Your task to perform on an android device: Search for "macbook pro 15 inch" on walmart.com, select the first entry, and add it to the cart. Image 0: 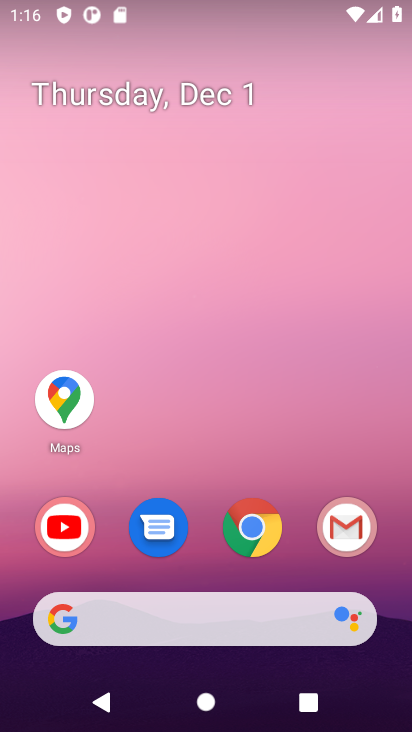
Step 0: click (256, 535)
Your task to perform on an android device: Search for "macbook pro 15 inch" on walmart.com, select the first entry, and add it to the cart. Image 1: 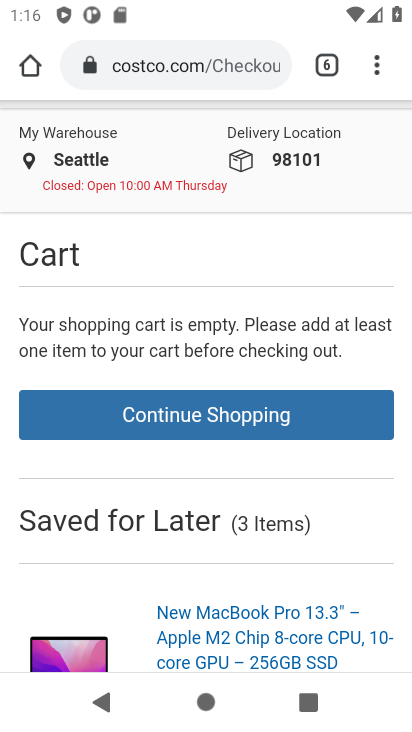
Step 1: click (186, 69)
Your task to perform on an android device: Search for "macbook pro 15 inch" on walmart.com, select the first entry, and add it to the cart. Image 2: 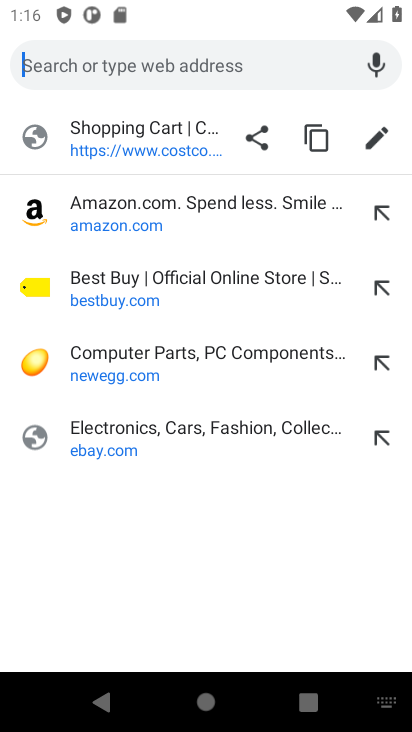
Step 2: type "walmart.com"
Your task to perform on an android device: Search for "macbook pro 15 inch" on walmart.com, select the first entry, and add it to the cart. Image 3: 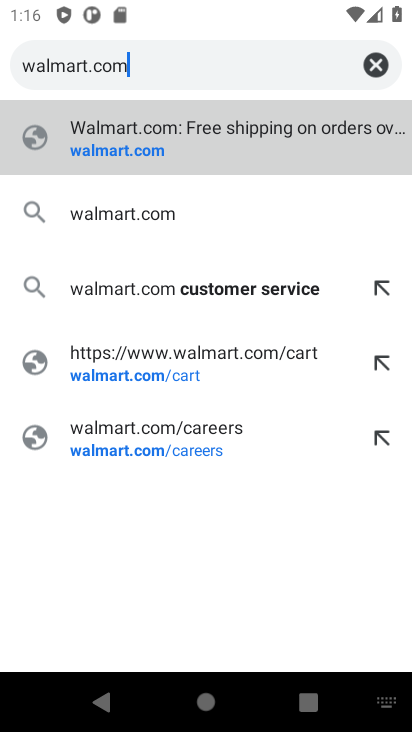
Step 3: click (70, 147)
Your task to perform on an android device: Search for "macbook pro 15 inch" on walmart.com, select the first entry, and add it to the cart. Image 4: 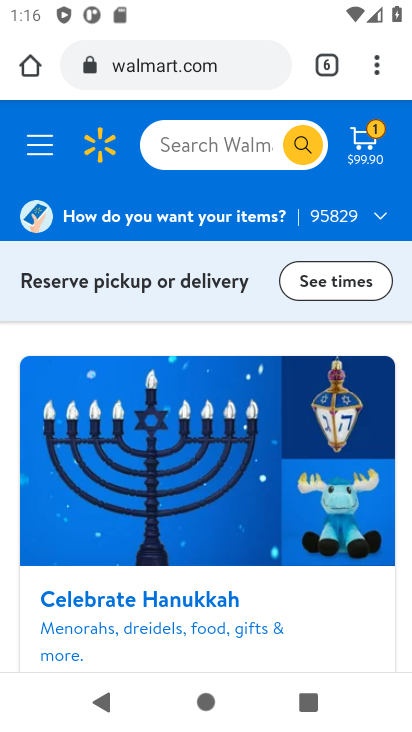
Step 4: click (168, 152)
Your task to perform on an android device: Search for "macbook pro 15 inch" on walmart.com, select the first entry, and add it to the cart. Image 5: 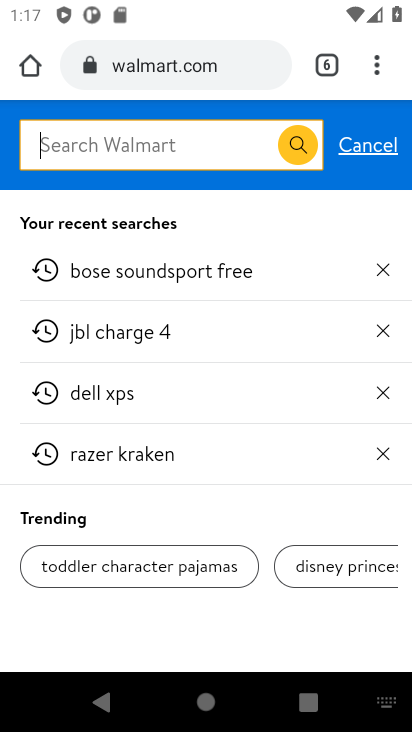
Step 5: type "macbook pro 15 inch"
Your task to perform on an android device: Search for "macbook pro 15 inch" on walmart.com, select the first entry, and add it to the cart. Image 6: 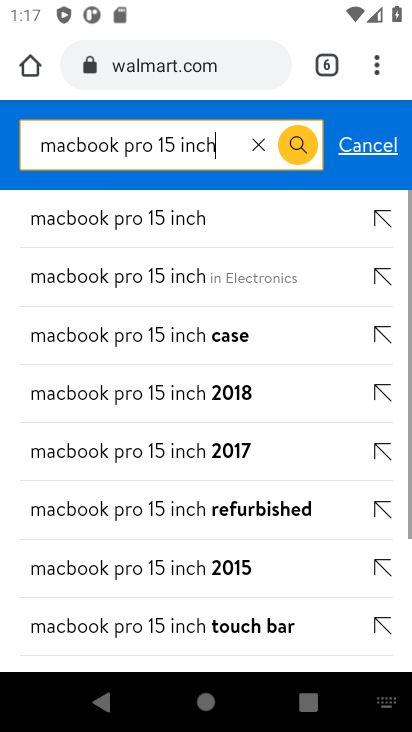
Step 6: click (141, 218)
Your task to perform on an android device: Search for "macbook pro 15 inch" on walmart.com, select the first entry, and add it to the cart. Image 7: 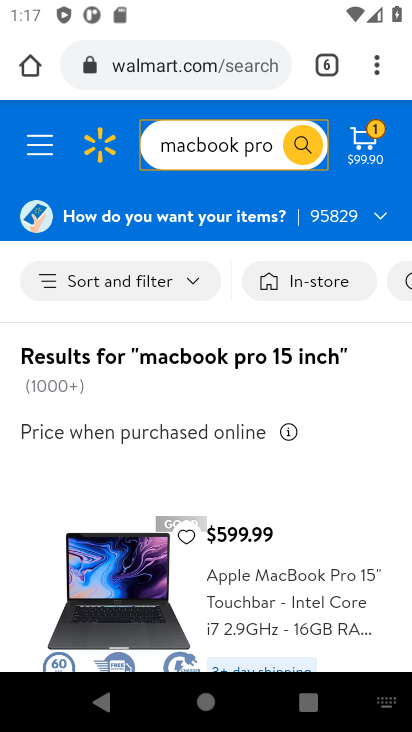
Step 7: drag from (294, 527) to (280, 346)
Your task to perform on an android device: Search for "macbook pro 15 inch" on walmart.com, select the first entry, and add it to the cart. Image 8: 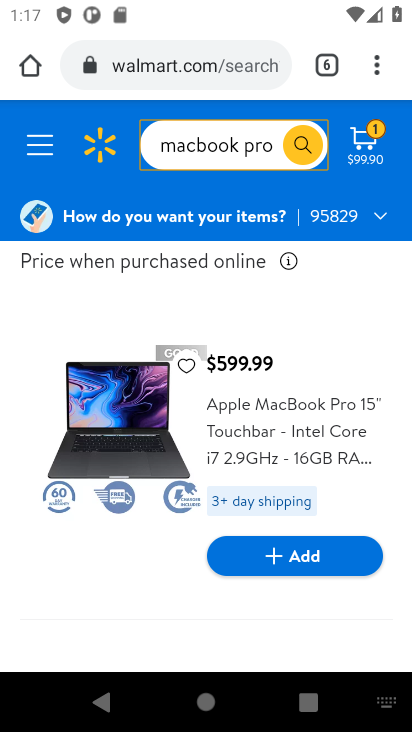
Step 8: click (280, 572)
Your task to perform on an android device: Search for "macbook pro 15 inch" on walmart.com, select the first entry, and add it to the cart. Image 9: 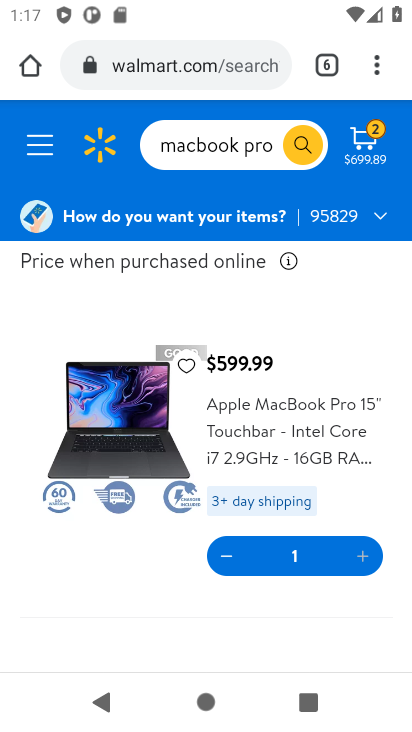
Step 9: task complete